Your task to perform on an android device: see tabs open on other devices in the chrome app Image 0: 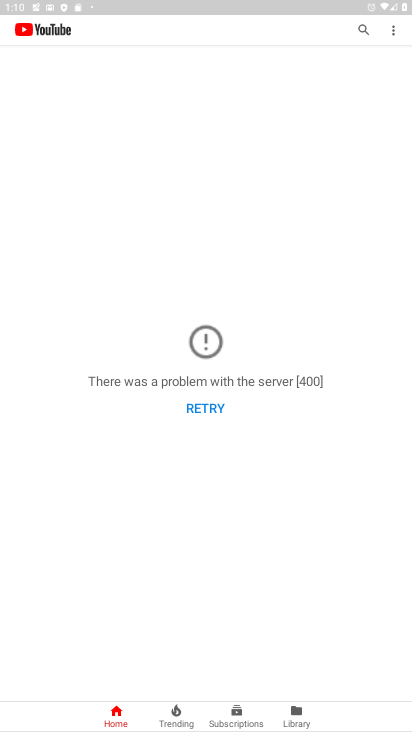
Step 0: press home button
Your task to perform on an android device: see tabs open on other devices in the chrome app Image 1: 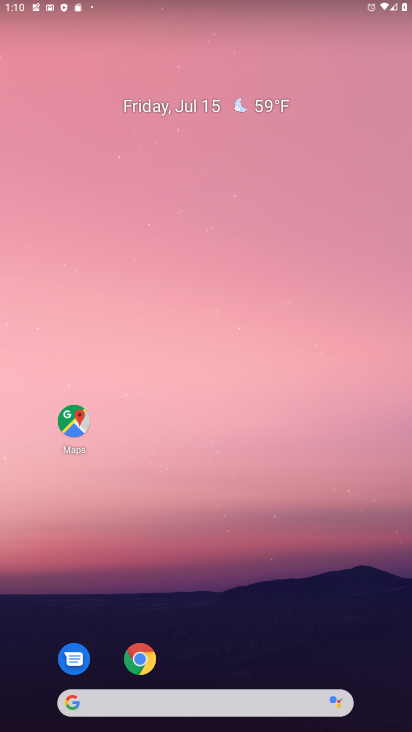
Step 1: click (140, 662)
Your task to perform on an android device: see tabs open on other devices in the chrome app Image 2: 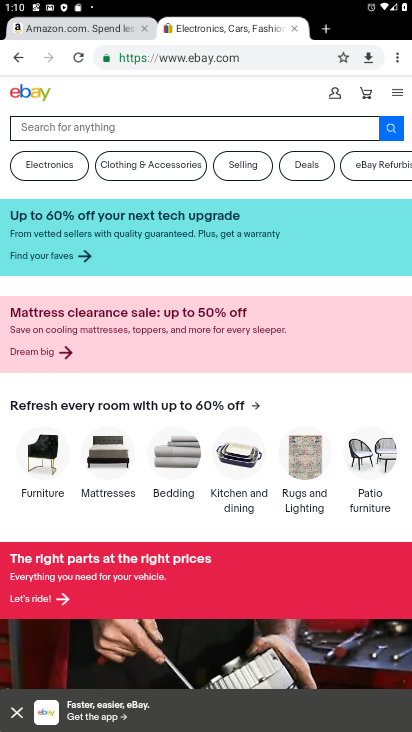
Step 2: click (405, 70)
Your task to perform on an android device: see tabs open on other devices in the chrome app Image 3: 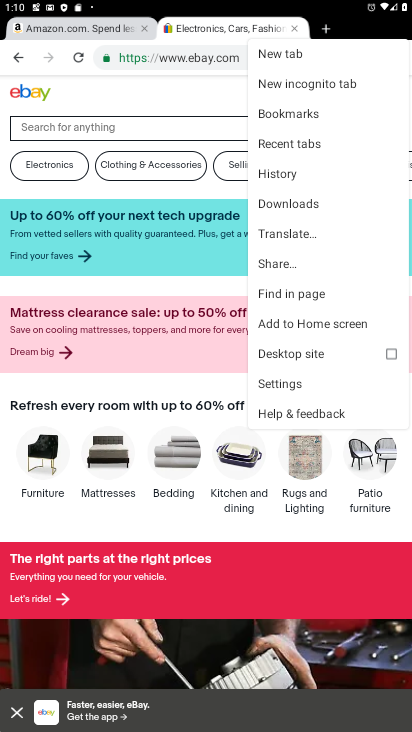
Step 3: click (277, 147)
Your task to perform on an android device: see tabs open on other devices in the chrome app Image 4: 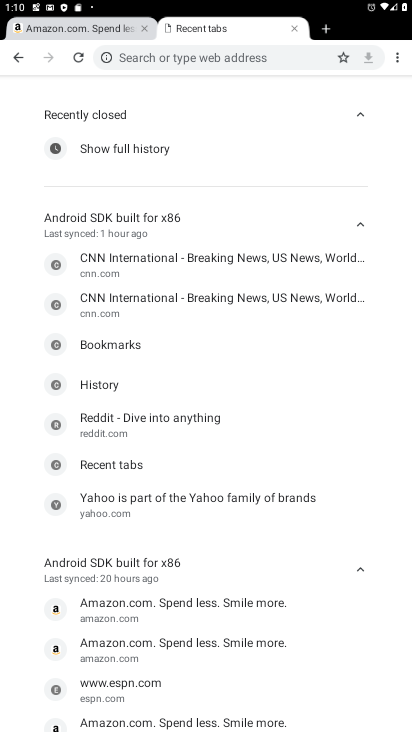
Step 4: task complete